Your task to perform on an android device: Open Chrome and go to the settings page Image 0: 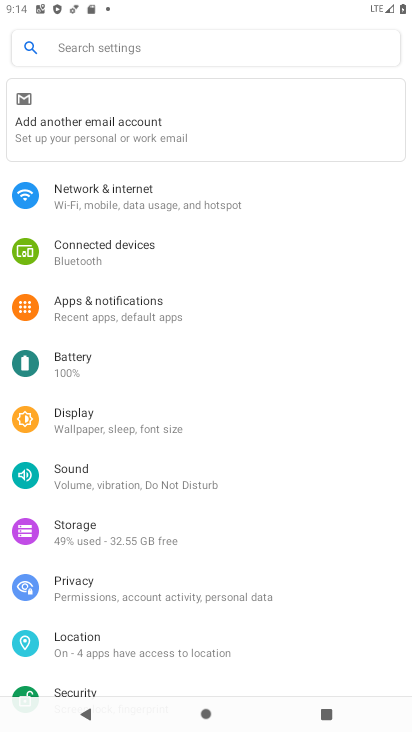
Step 0: press home button
Your task to perform on an android device: Open Chrome and go to the settings page Image 1: 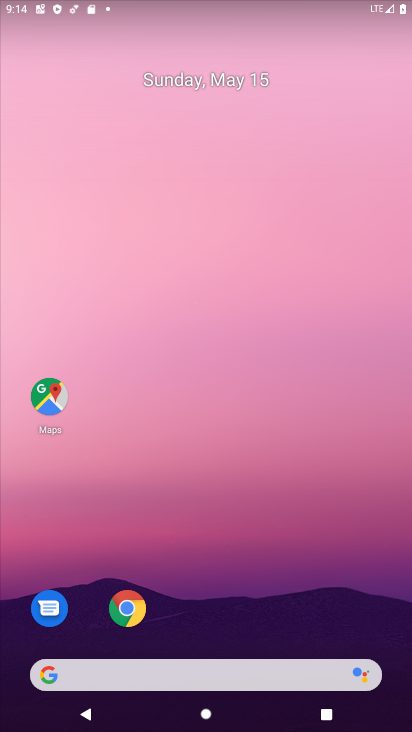
Step 1: click (107, 630)
Your task to perform on an android device: Open Chrome and go to the settings page Image 2: 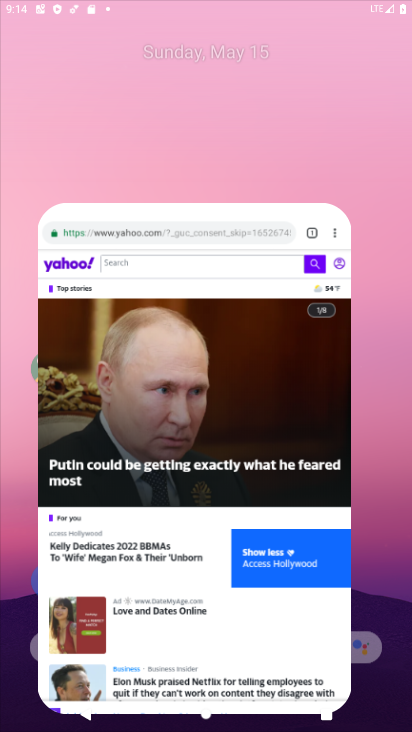
Step 2: click (126, 625)
Your task to perform on an android device: Open Chrome and go to the settings page Image 3: 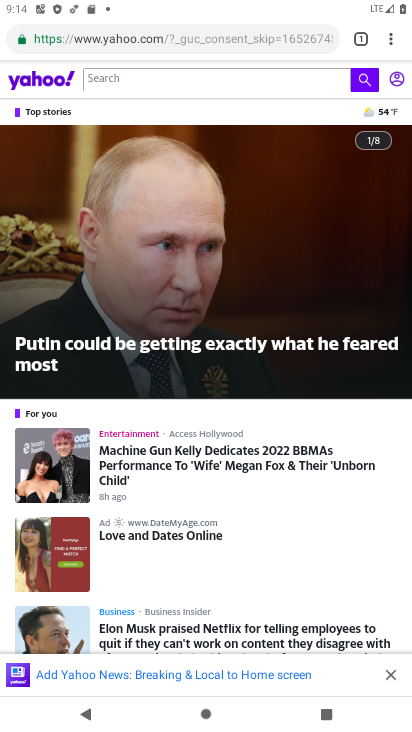
Step 3: task complete